Your task to perform on an android device: What's on my calendar today? Image 0: 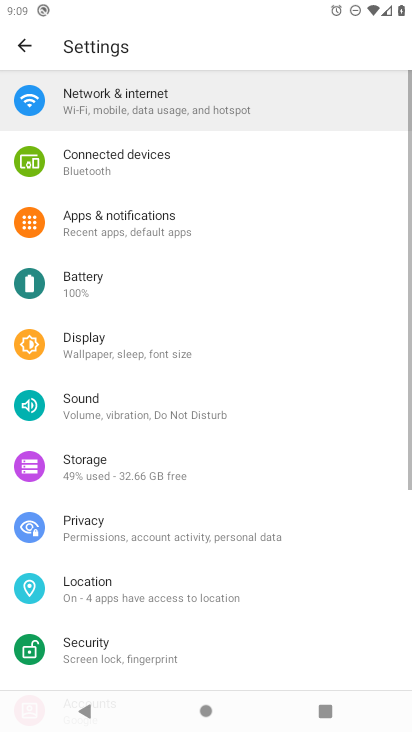
Step 0: press home button
Your task to perform on an android device: What's on my calendar today? Image 1: 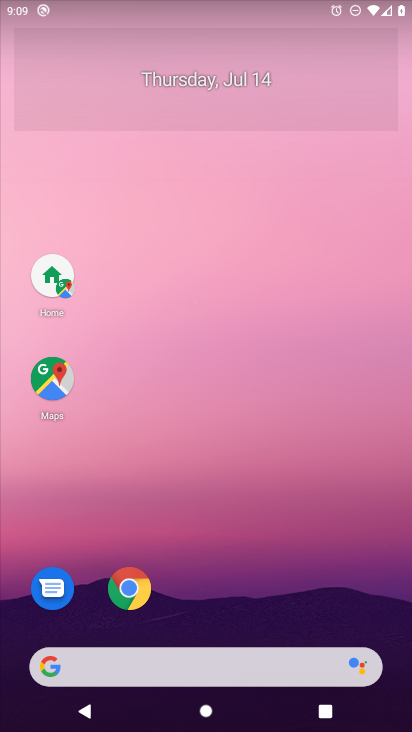
Step 1: drag from (42, 707) to (403, 180)
Your task to perform on an android device: What's on my calendar today? Image 2: 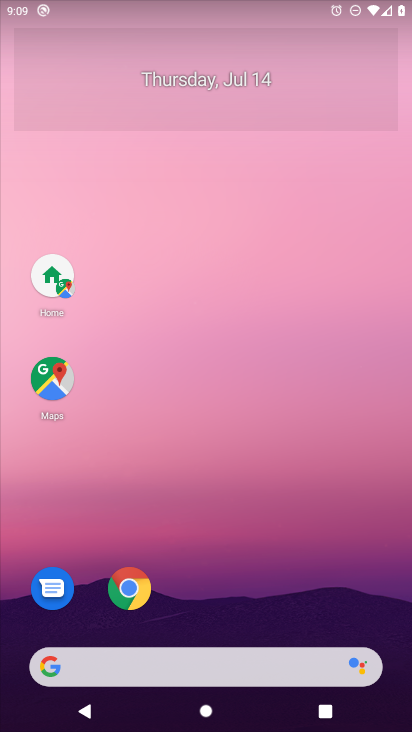
Step 2: drag from (17, 705) to (388, 539)
Your task to perform on an android device: What's on my calendar today? Image 3: 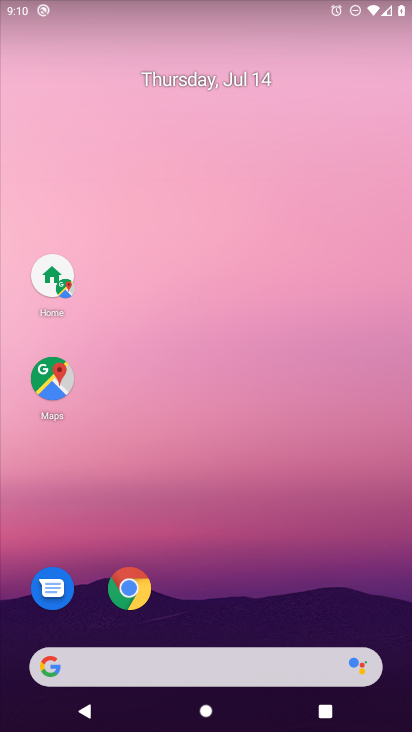
Step 3: drag from (214, 311) to (410, 129)
Your task to perform on an android device: What's on my calendar today? Image 4: 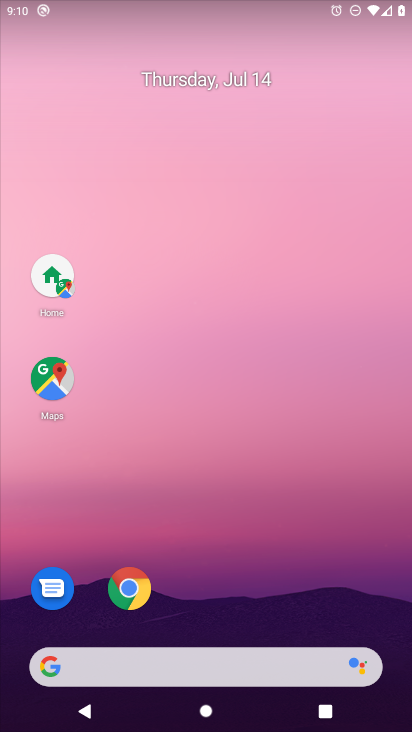
Step 4: drag from (42, 713) to (232, 202)
Your task to perform on an android device: What's on my calendar today? Image 5: 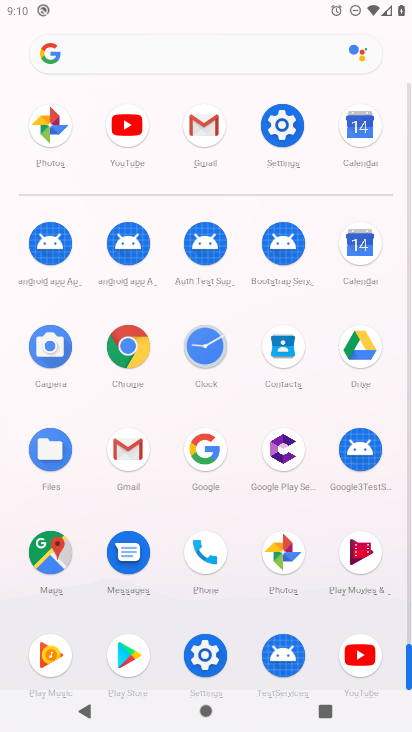
Step 5: click (359, 260)
Your task to perform on an android device: What's on my calendar today? Image 6: 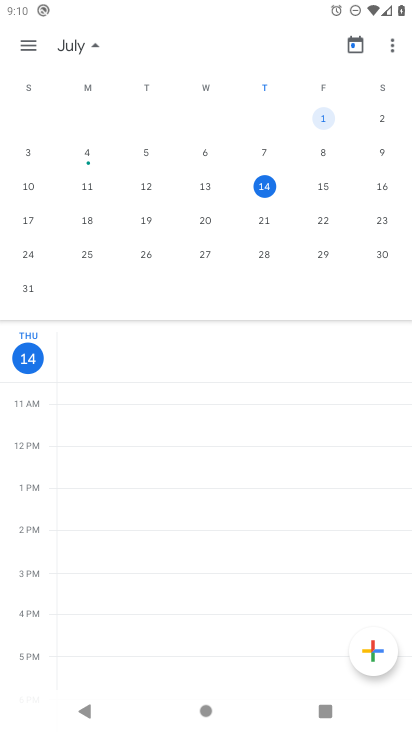
Step 6: task complete